Your task to perform on an android device: find which apps use the phone's location Image 0: 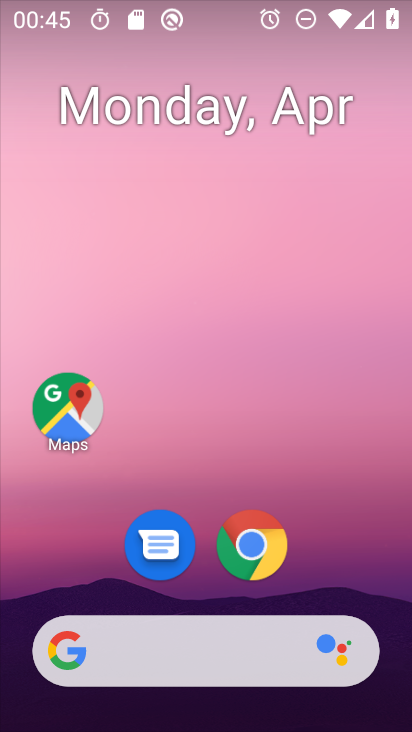
Step 0: drag from (344, 507) to (344, 257)
Your task to perform on an android device: find which apps use the phone's location Image 1: 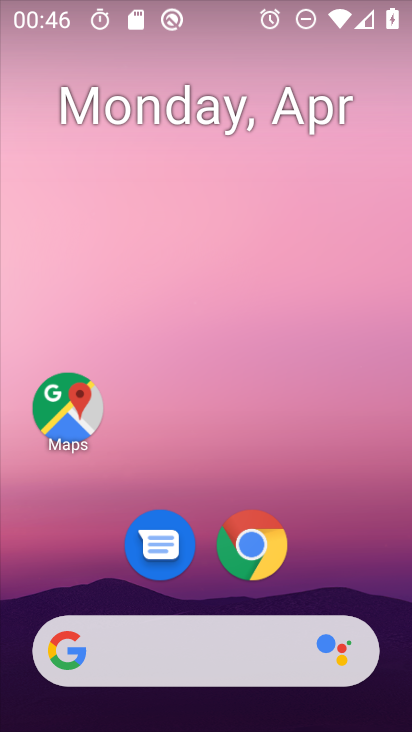
Step 1: drag from (335, 453) to (296, 214)
Your task to perform on an android device: find which apps use the phone's location Image 2: 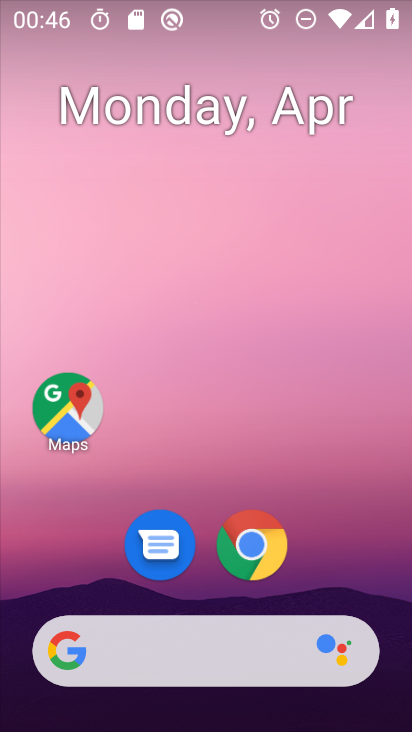
Step 2: drag from (349, 480) to (355, 121)
Your task to perform on an android device: find which apps use the phone's location Image 3: 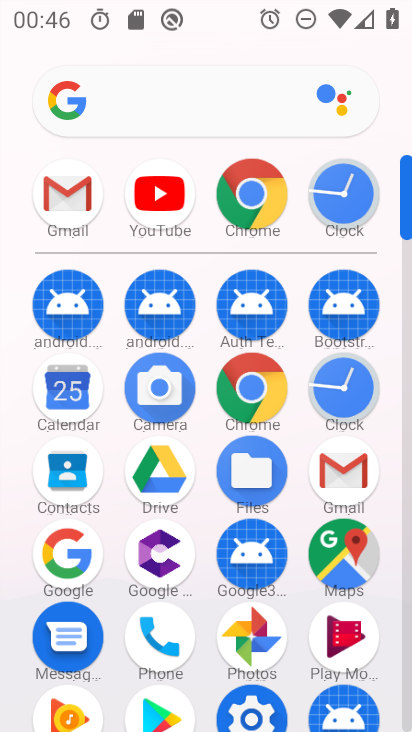
Step 3: click (235, 704)
Your task to perform on an android device: find which apps use the phone's location Image 4: 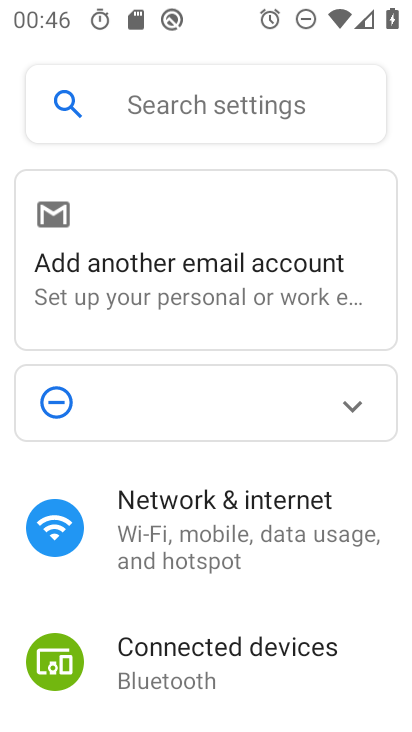
Step 4: drag from (243, 658) to (346, 1)
Your task to perform on an android device: find which apps use the phone's location Image 5: 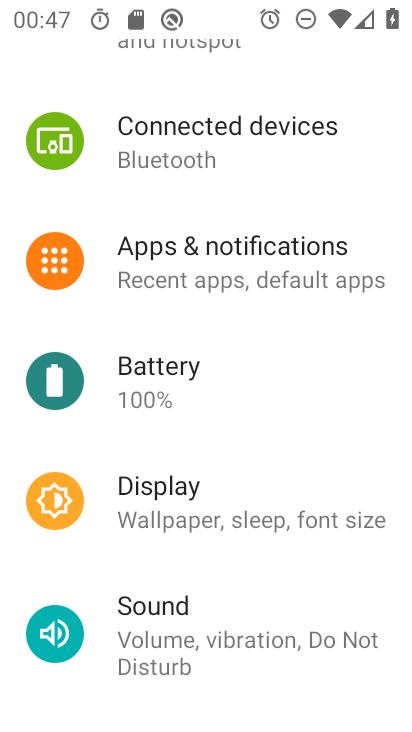
Step 5: drag from (192, 580) to (267, 151)
Your task to perform on an android device: find which apps use the phone's location Image 6: 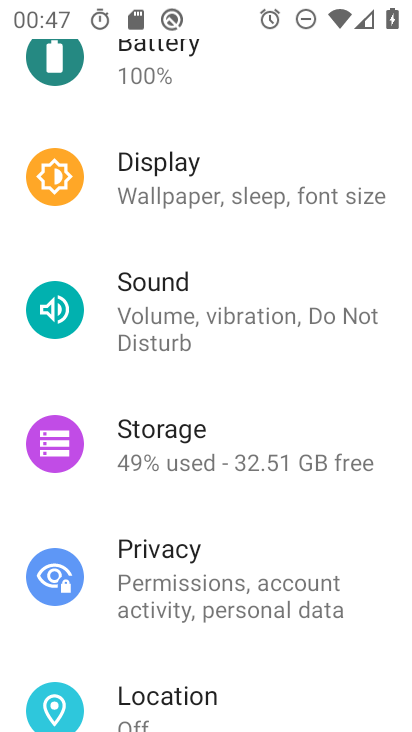
Step 6: drag from (265, 582) to (304, 276)
Your task to perform on an android device: find which apps use the phone's location Image 7: 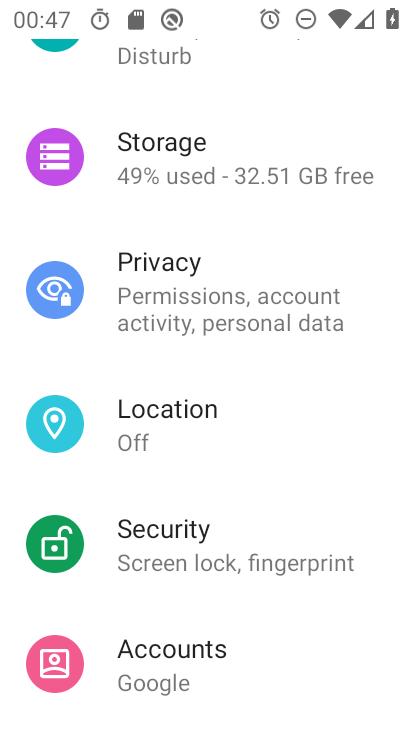
Step 7: click (248, 392)
Your task to perform on an android device: find which apps use the phone's location Image 8: 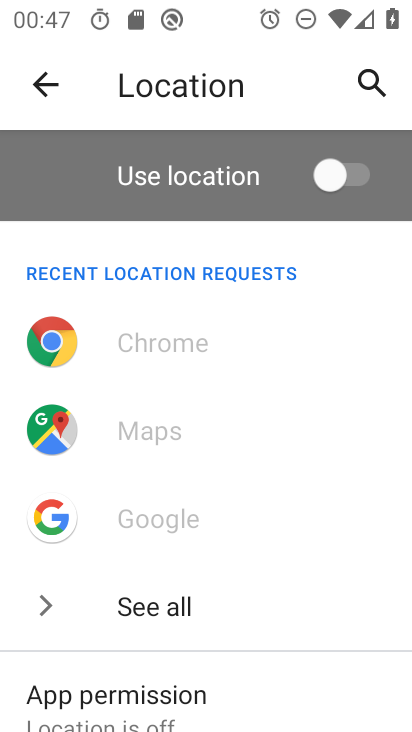
Step 8: task complete